Your task to perform on an android device: Go to privacy settings Image 0: 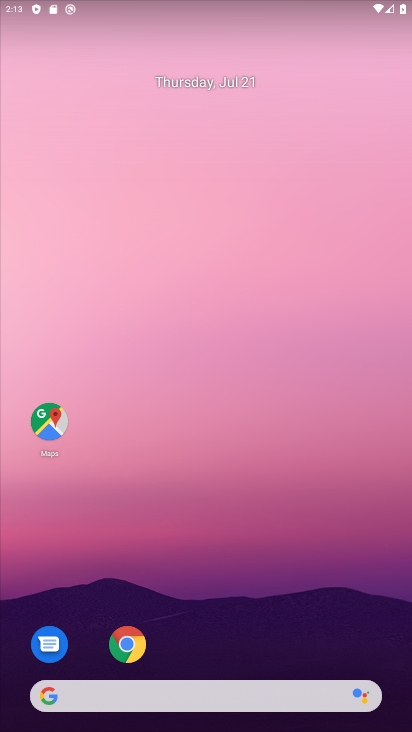
Step 0: drag from (277, 629) to (226, 120)
Your task to perform on an android device: Go to privacy settings Image 1: 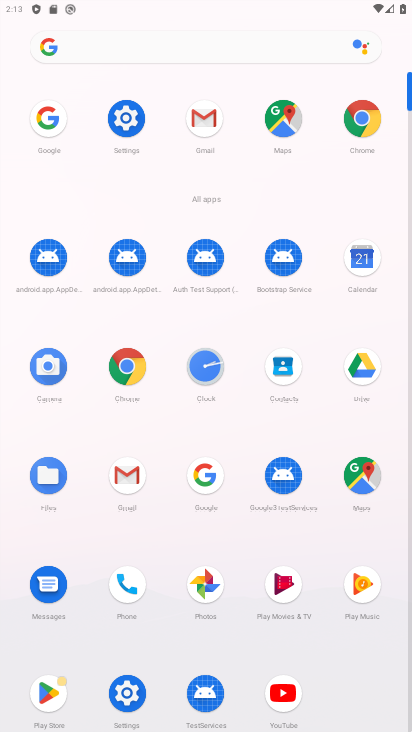
Step 1: click (115, 119)
Your task to perform on an android device: Go to privacy settings Image 2: 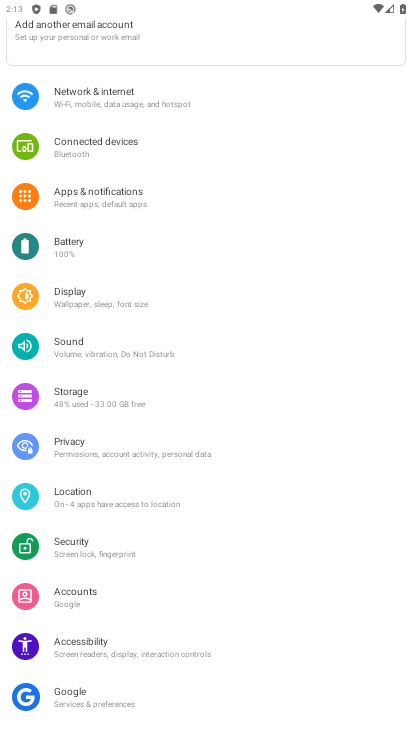
Step 2: click (130, 451)
Your task to perform on an android device: Go to privacy settings Image 3: 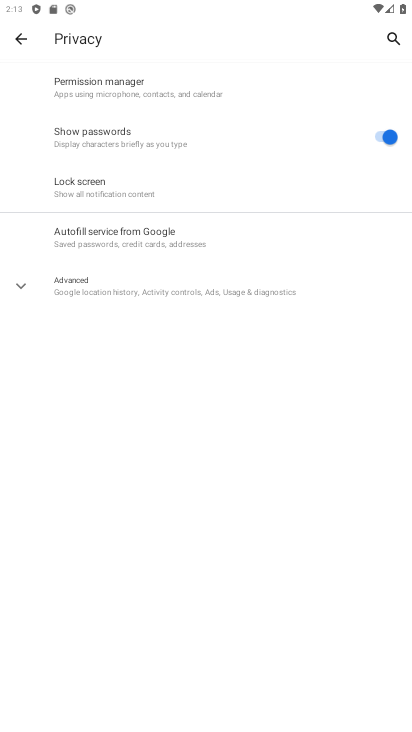
Step 3: task complete